Your task to perform on an android device: open a new tab in the chrome app Image 0: 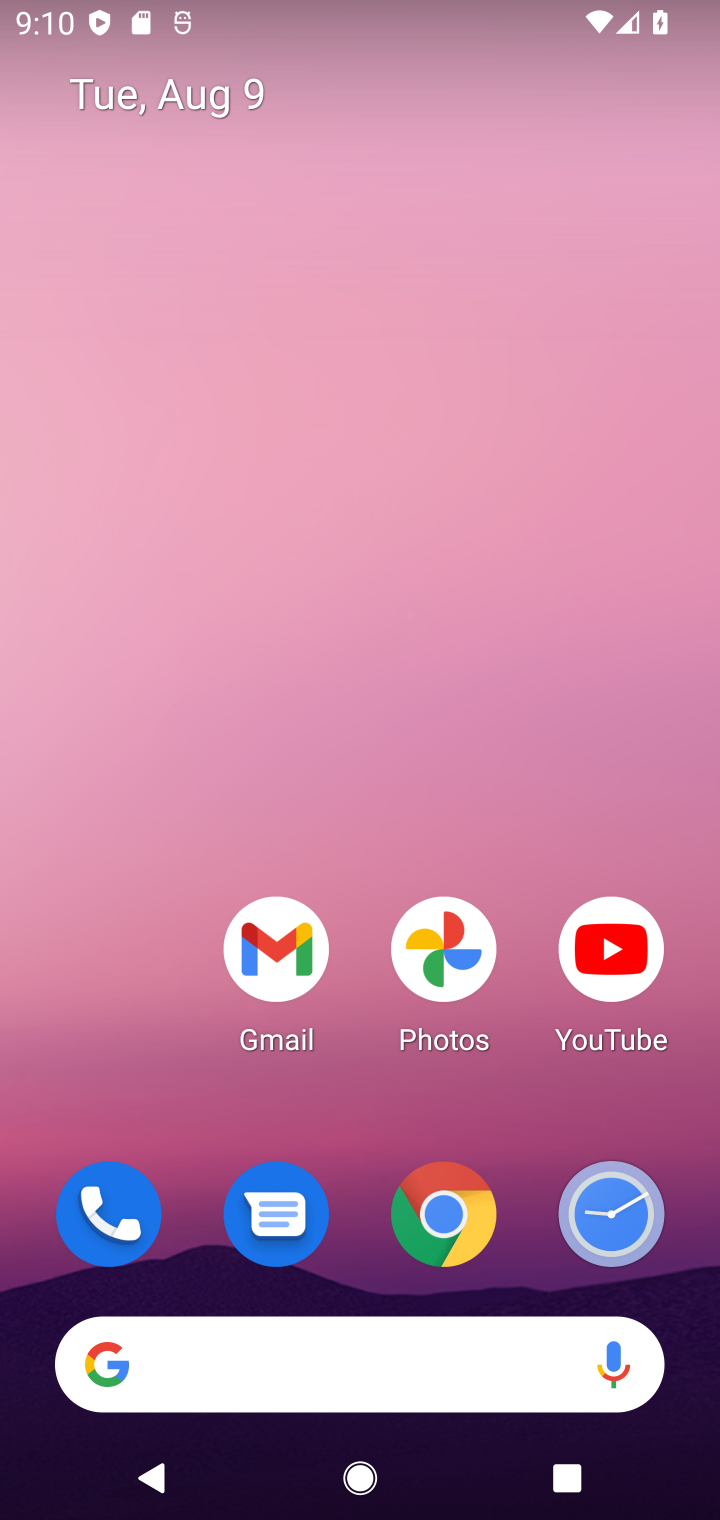
Step 0: click (439, 1221)
Your task to perform on an android device: open a new tab in the chrome app Image 1: 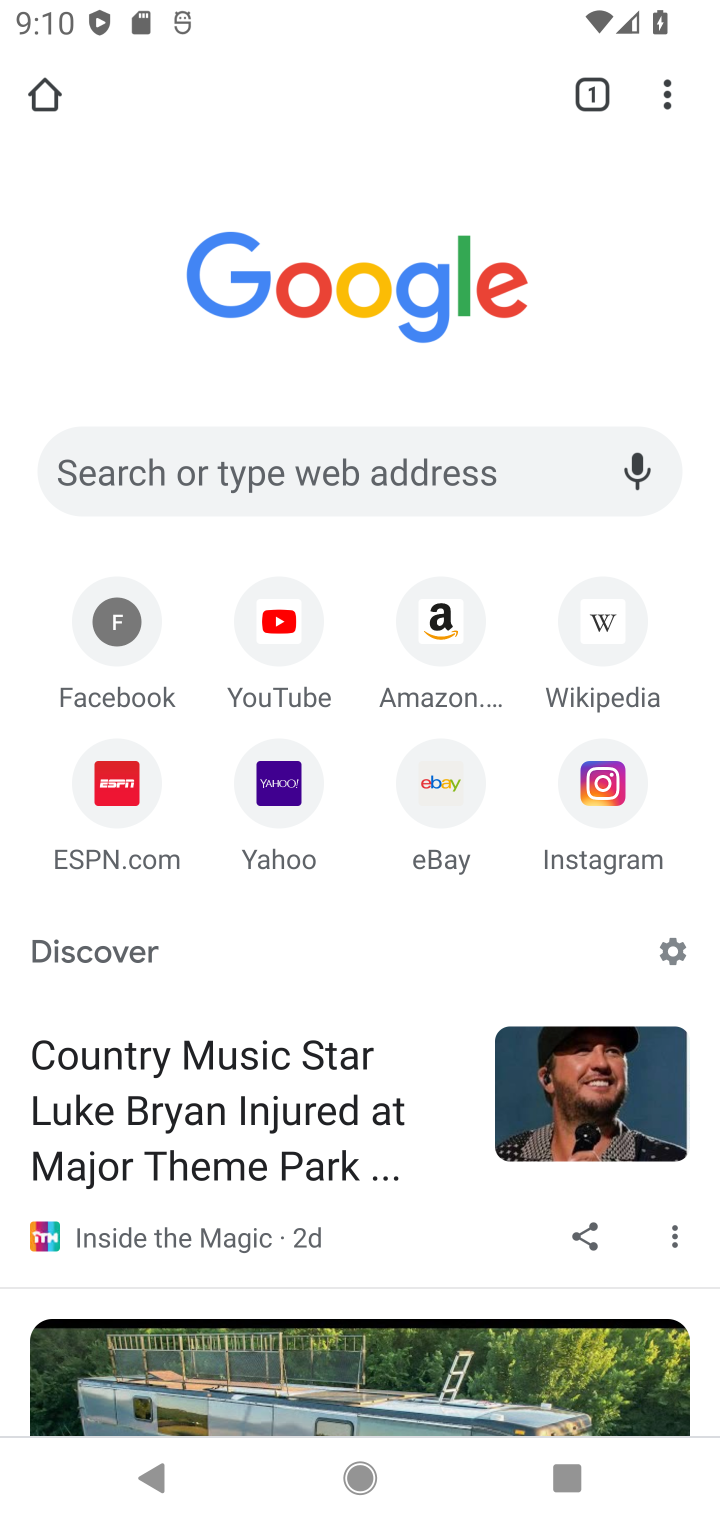
Step 1: click (674, 97)
Your task to perform on an android device: open a new tab in the chrome app Image 2: 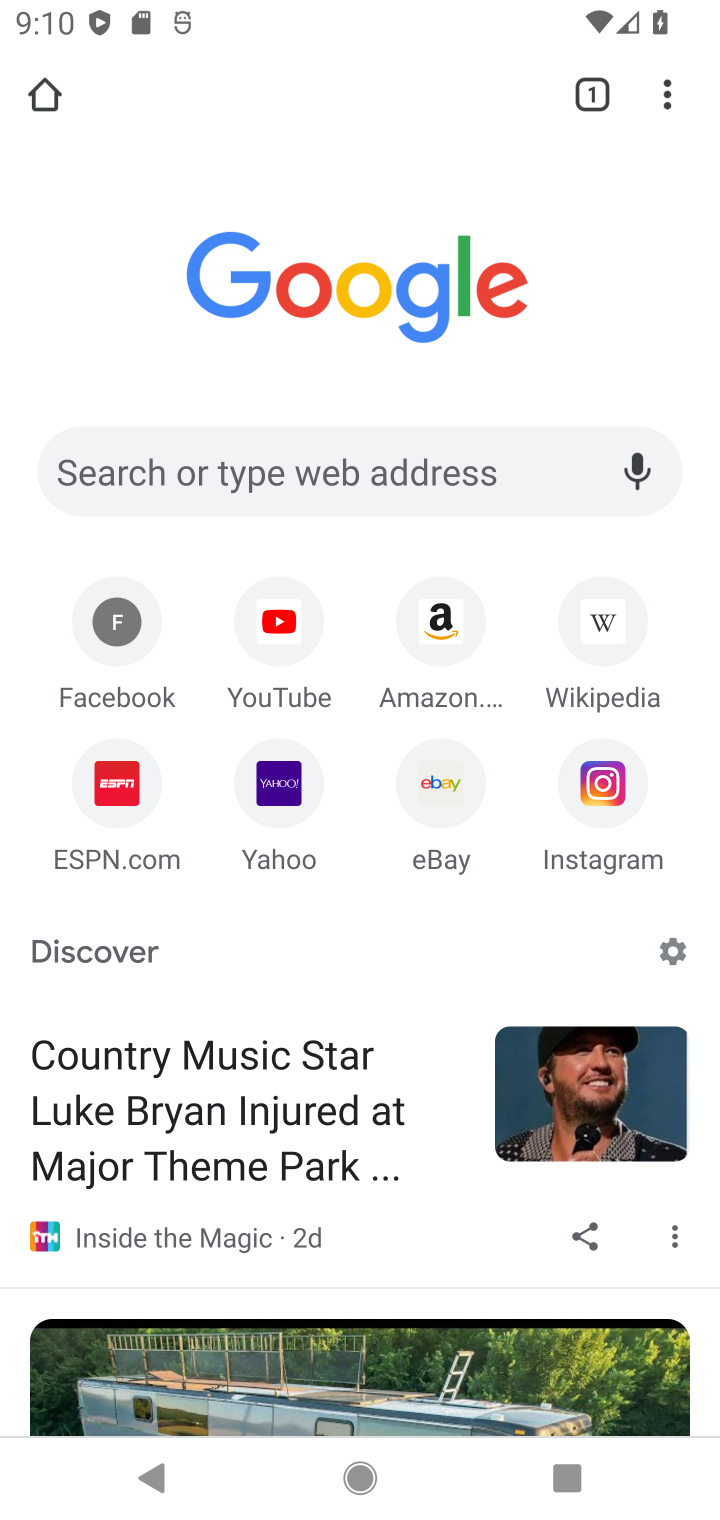
Step 2: click (665, 81)
Your task to perform on an android device: open a new tab in the chrome app Image 3: 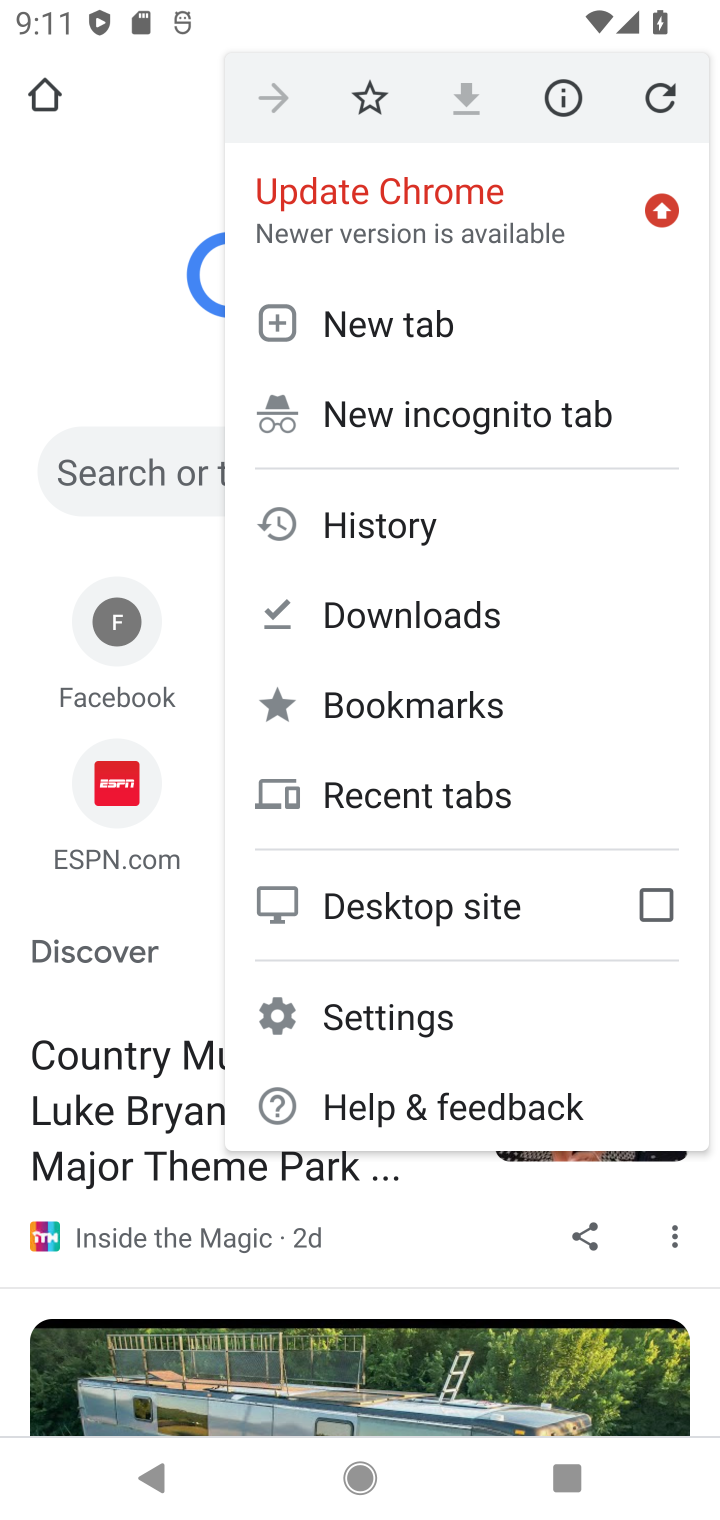
Step 3: click (386, 317)
Your task to perform on an android device: open a new tab in the chrome app Image 4: 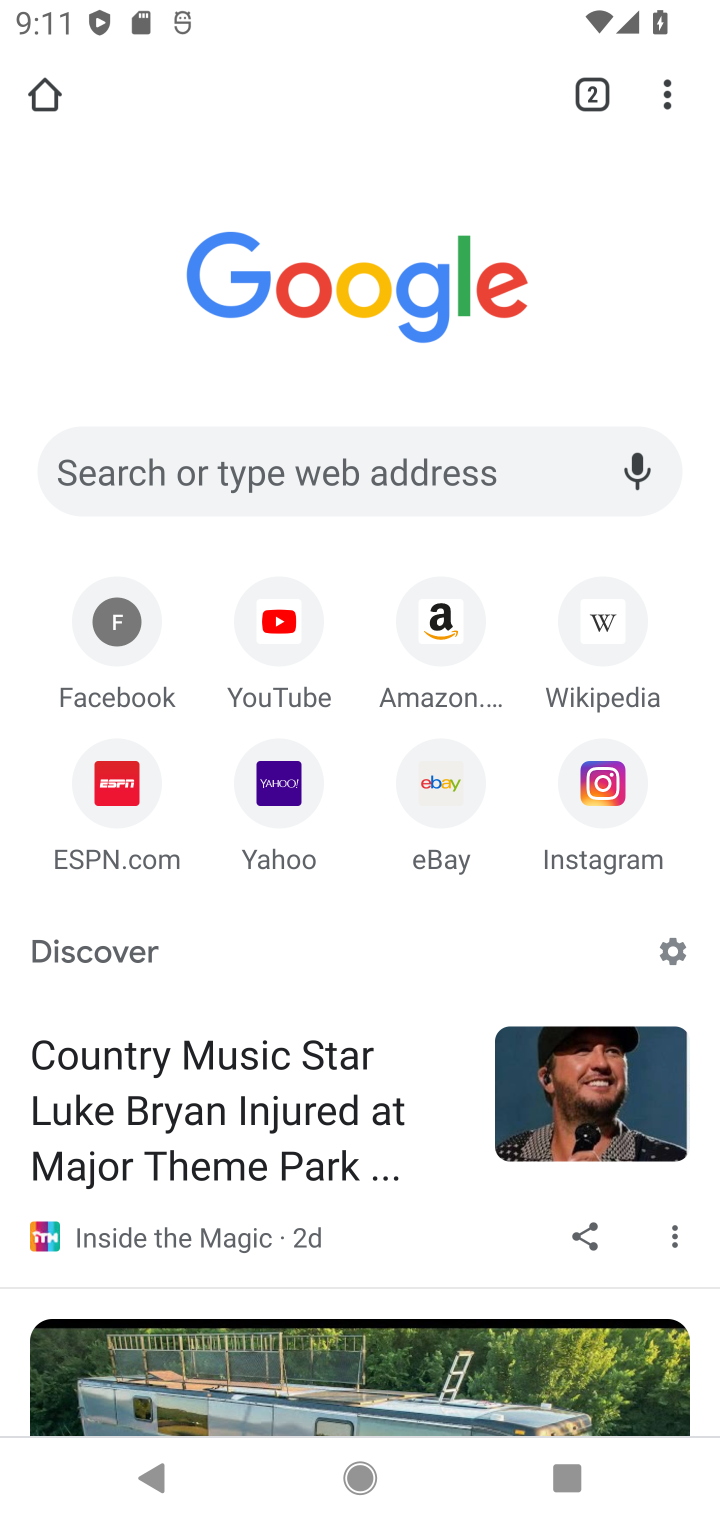
Step 4: task complete